Your task to perform on an android device: all mails in gmail Image 0: 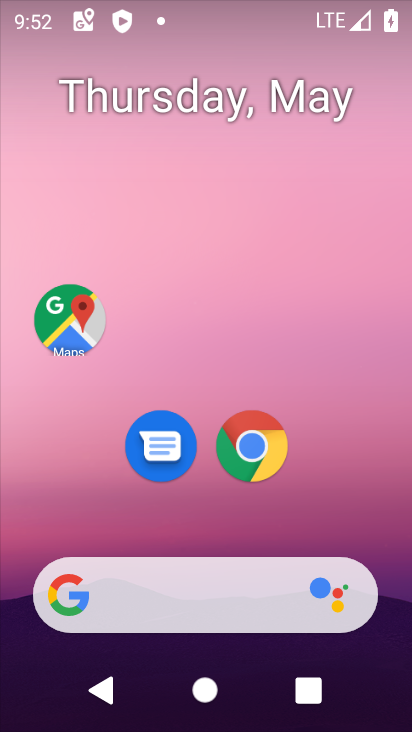
Step 0: drag from (396, 606) to (325, 72)
Your task to perform on an android device: all mails in gmail Image 1: 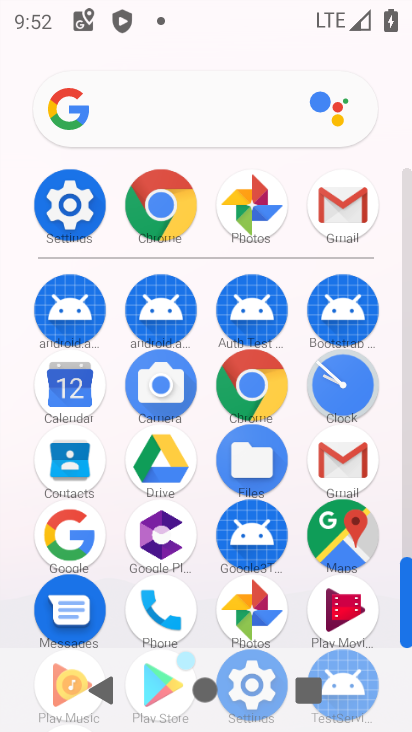
Step 1: click (344, 459)
Your task to perform on an android device: all mails in gmail Image 2: 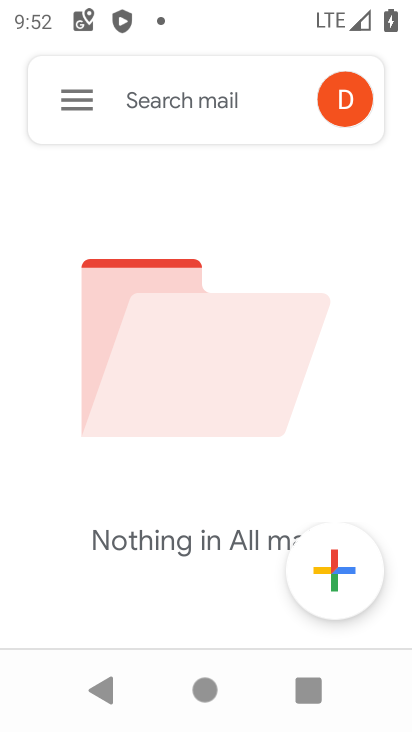
Step 2: click (68, 91)
Your task to perform on an android device: all mails in gmail Image 3: 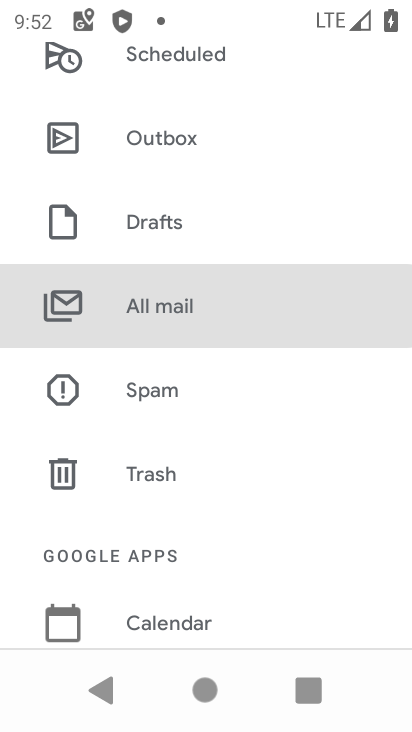
Step 3: task complete